Your task to perform on an android device: Open internet settings Image 0: 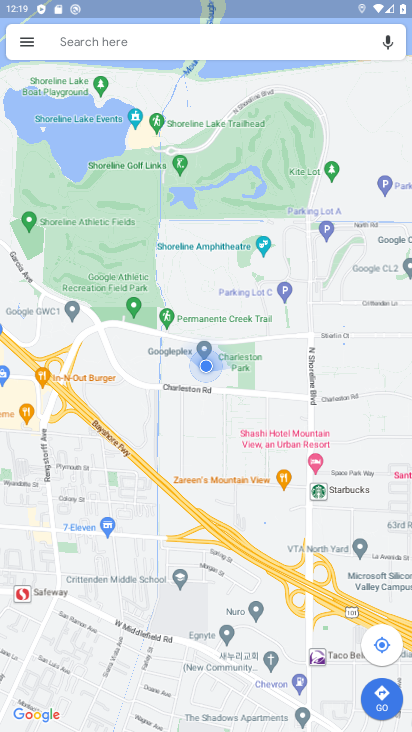
Step 0: press home button
Your task to perform on an android device: Open internet settings Image 1: 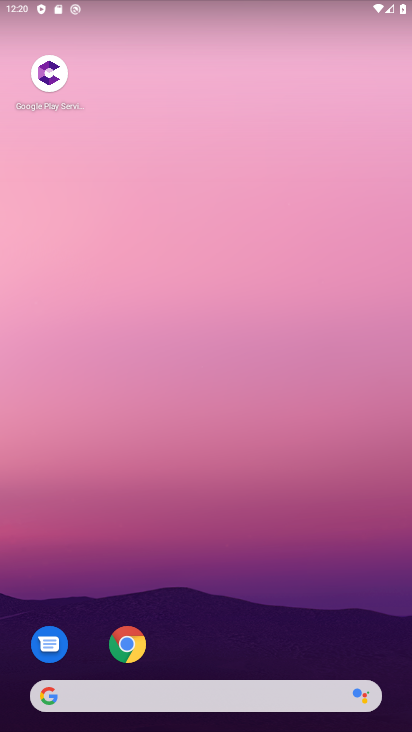
Step 1: drag from (276, 637) to (296, 260)
Your task to perform on an android device: Open internet settings Image 2: 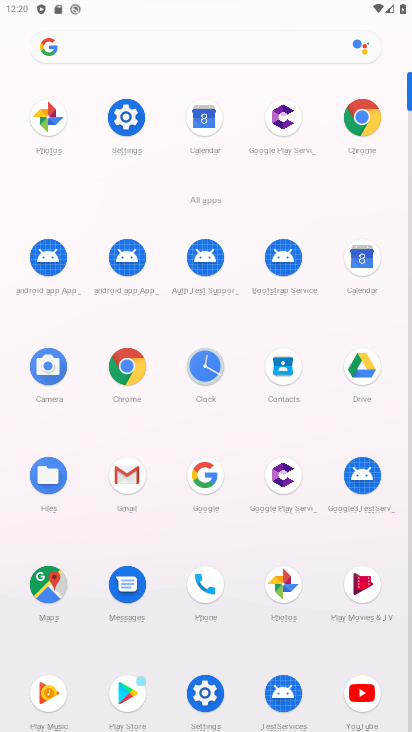
Step 2: click (129, 119)
Your task to perform on an android device: Open internet settings Image 3: 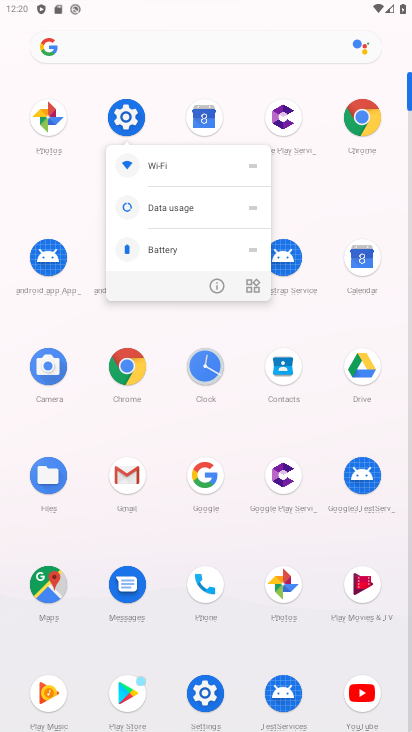
Step 3: click (129, 119)
Your task to perform on an android device: Open internet settings Image 4: 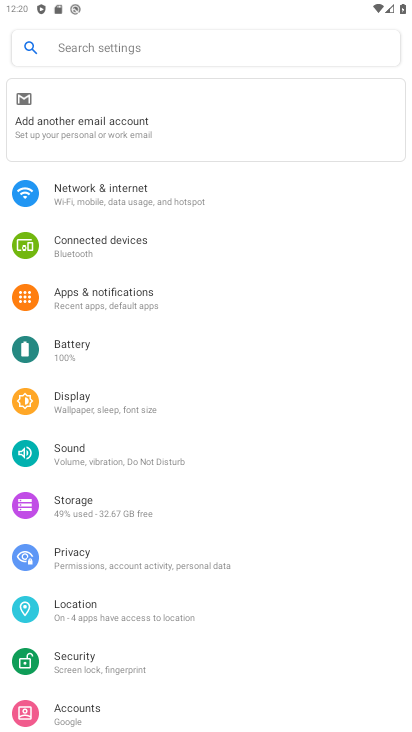
Step 4: click (88, 108)
Your task to perform on an android device: Open internet settings Image 5: 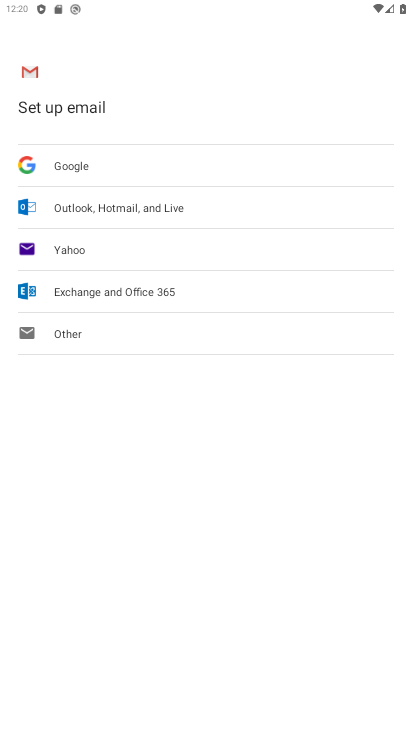
Step 5: press back button
Your task to perform on an android device: Open internet settings Image 6: 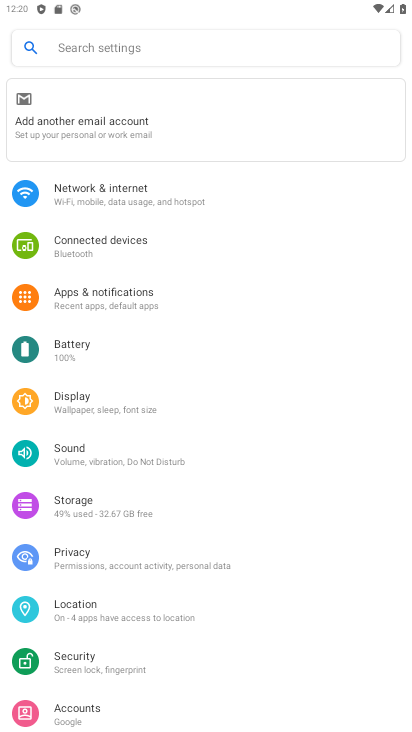
Step 6: click (92, 207)
Your task to perform on an android device: Open internet settings Image 7: 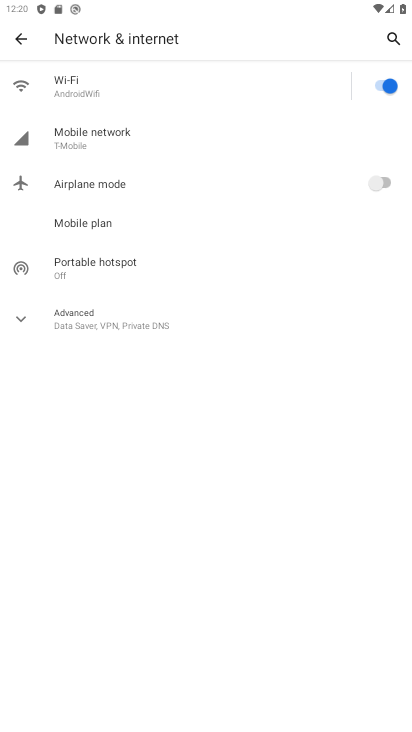
Step 7: click (99, 320)
Your task to perform on an android device: Open internet settings Image 8: 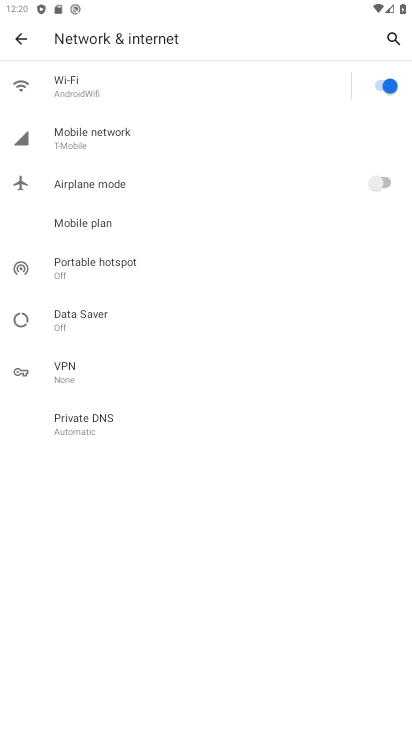
Step 8: task complete